Your task to perform on an android device: star an email in the gmail app Image 0: 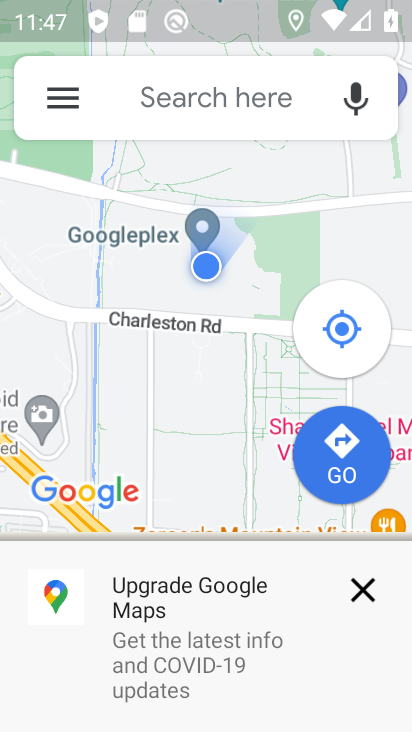
Step 0: press home button
Your task to perform on an android device: star an email in the gmail app Image 1: 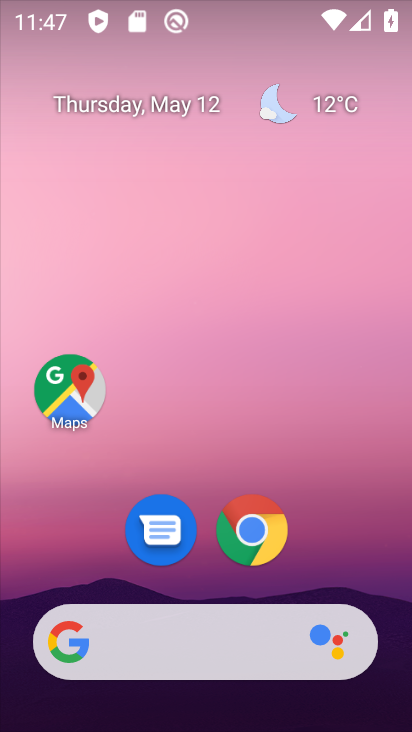
Step 1: drag from (351, 520) to (270, 167)
Your task to perform on an android device: star an email in the gmail app Image 2: 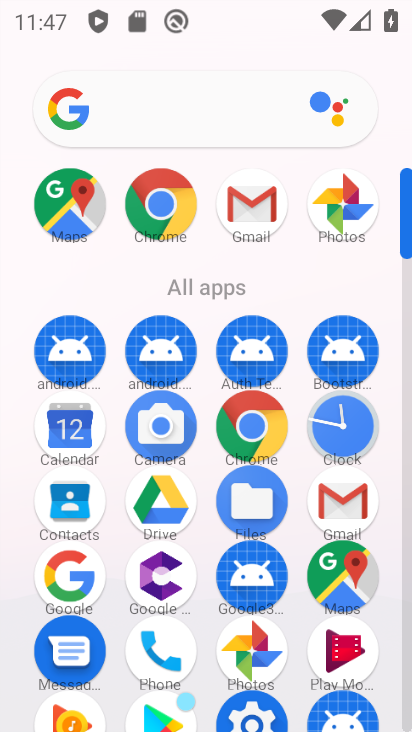
Step 2: click (263, 216)
Your task to perform on an android device: star an email in the gmail app Image 3: 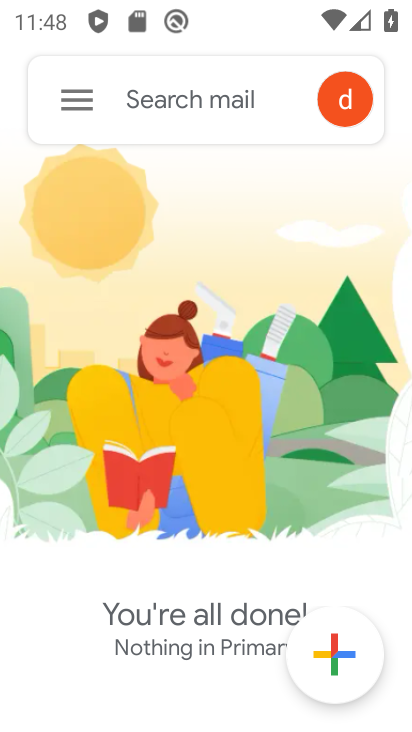
Step 3: click (91, 100)
Your task to perform on an android device: star an email in the gmail app Image 4: 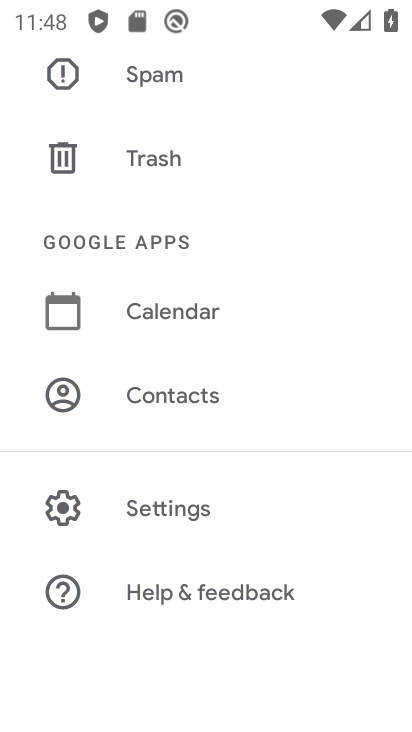
Step 4: drag from (178, 207) to (237, 574)
Your task to perform on an android device: star an email in the gmail app Image 5: 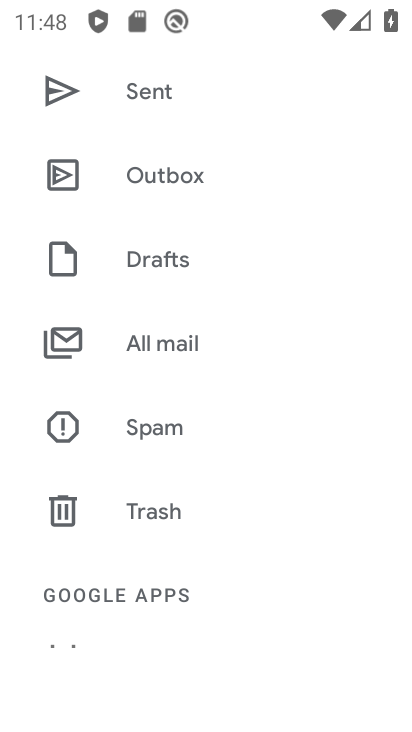
Step 5: click (196, 330)
Your task to perform on an android device: star an email in the gmail app Image 6: 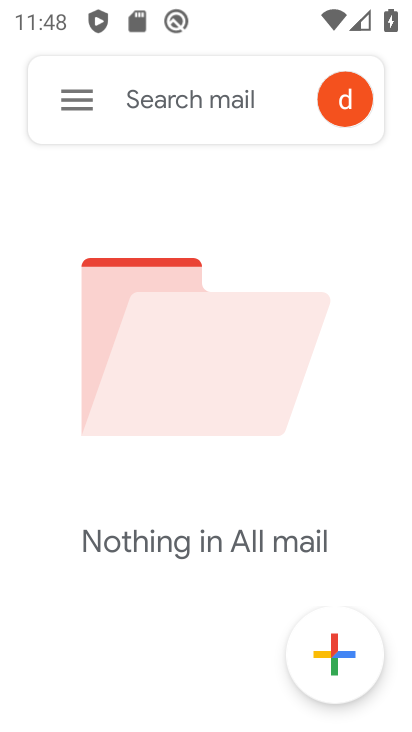
Step 6: task complete